Your task to perform on an android device: Show me recent news Image 0: 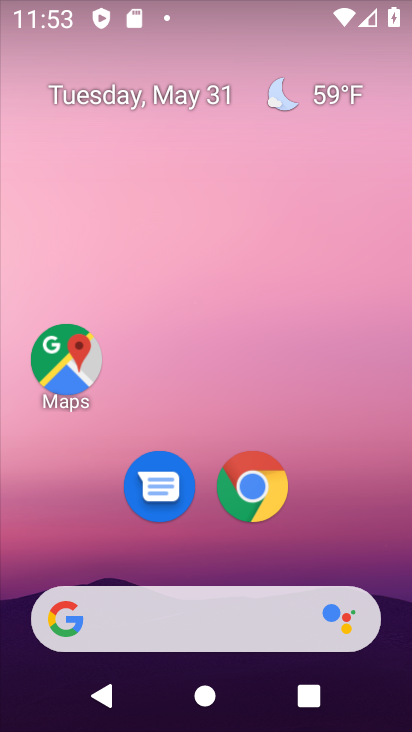
Step 0: drag from (1, 225) to (359, 204)
Your task to perform on an android device: Show me recent news Image 1: 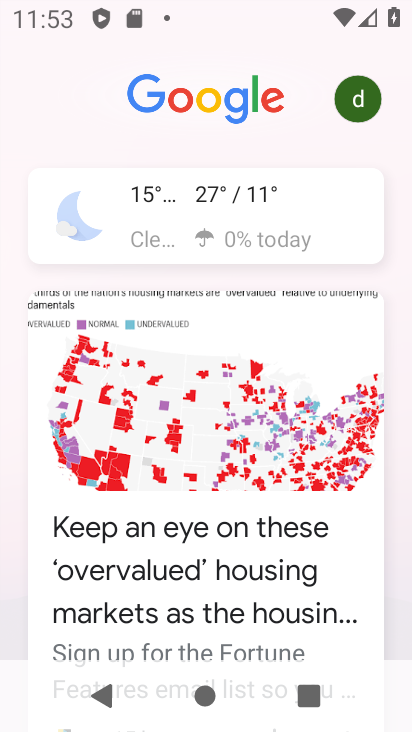
Step 1: task complete